Your task to perform on an android device: See recent photos Image 0: 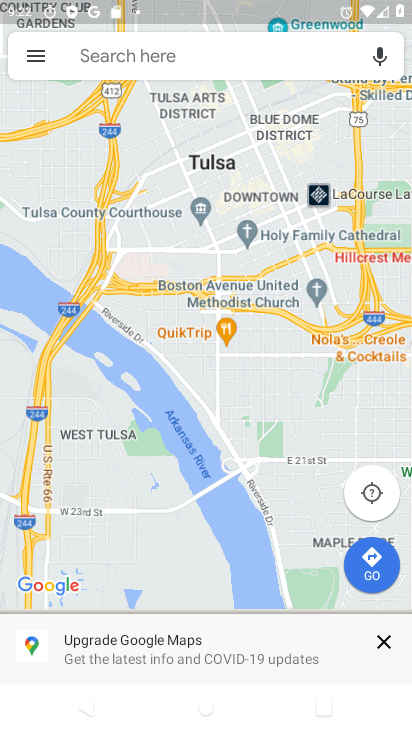
Step 0: press home button
Your task to perform on an android device: See recent photos Image 1: 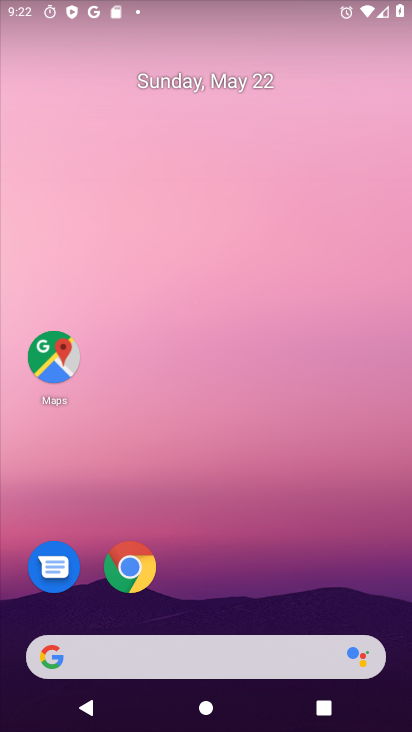
Step 1: drag from (192, 563) to (260, 32)
Your task to perform on an android device: See recent photos Image 2: 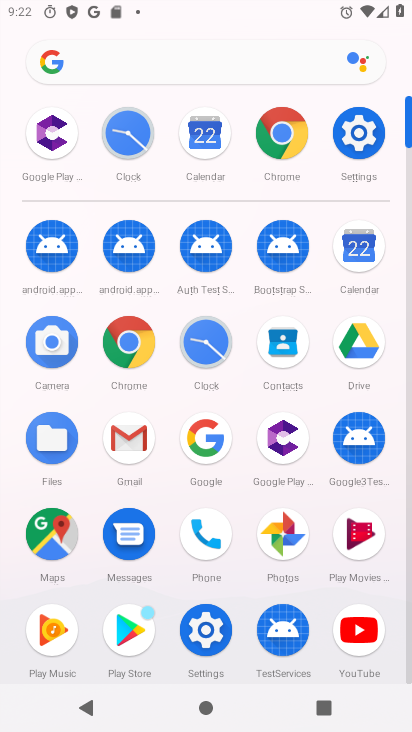
Step 2: click (201, 64)
Your task to perform on an android device: See recent photos Image 3: 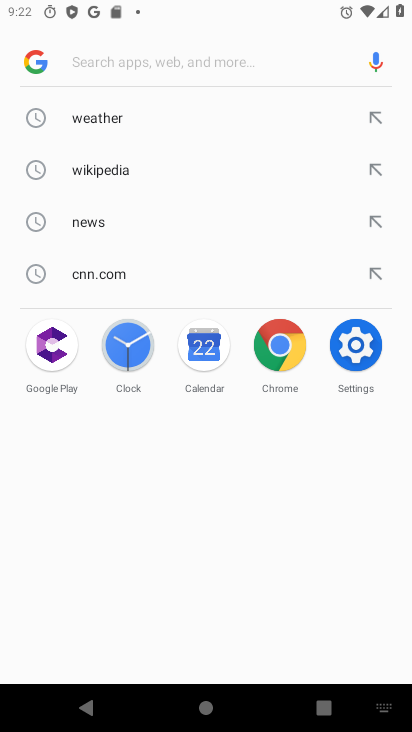
Step 3: press home button
Your task to perform on an android device: See recent photos Image 4: 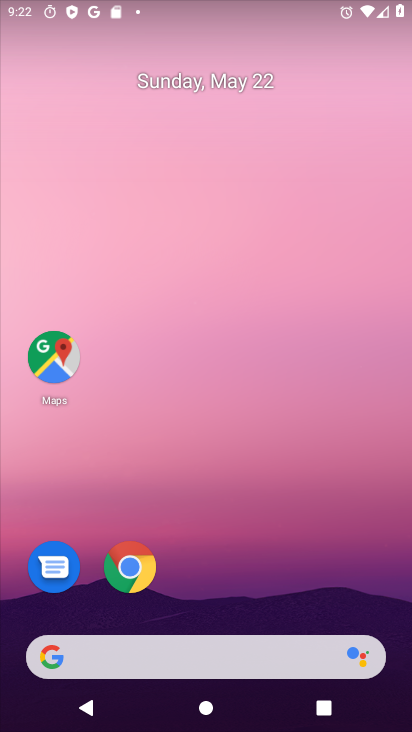
Step 4: drag from (200, 596) to (265, 17)
Your task to perform on an android device: See recent photos Image 5: 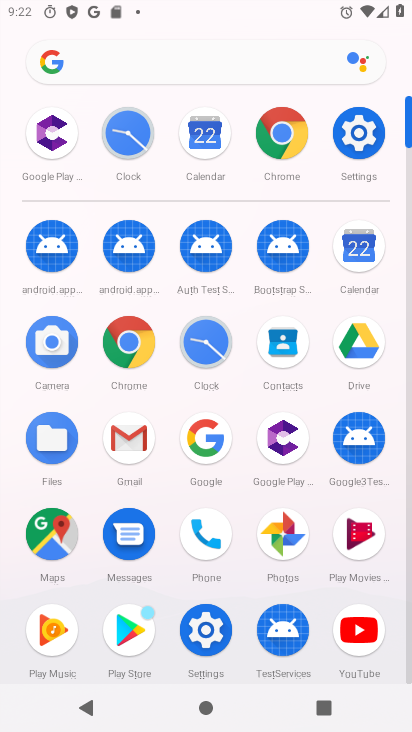
Step 5: drag from (252, 549) to (233, 351)
Your task to perform on an android device: See recent photos Image 6: 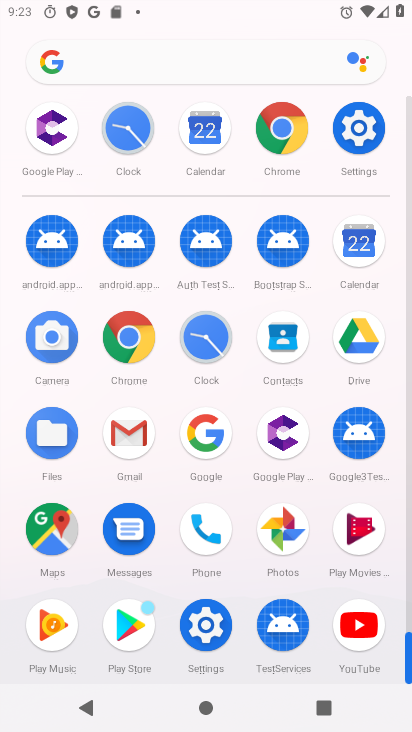
Step 6: click (277, 533)
Your task to perform on an android device: See recent photos Image 7: 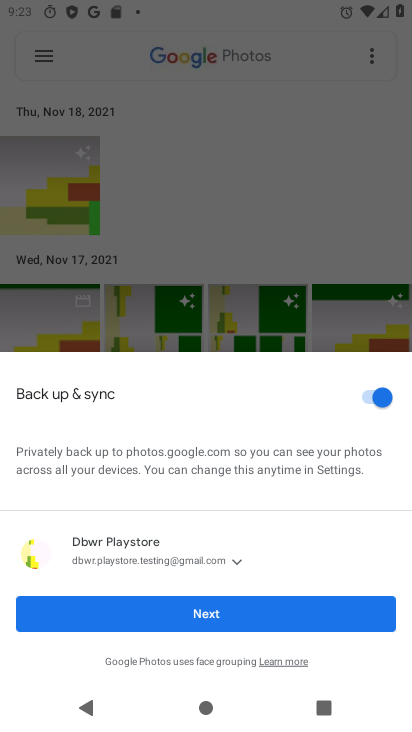
Step 7: click (170, 617)
Your task to perform on an android device: See recent photos Image 8: 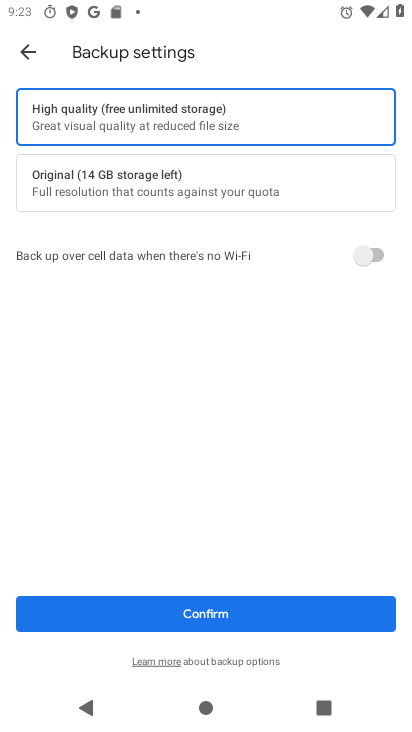
Step 8: click (172, 617)
Your task to perform on an android device: See recent photos Image 9: 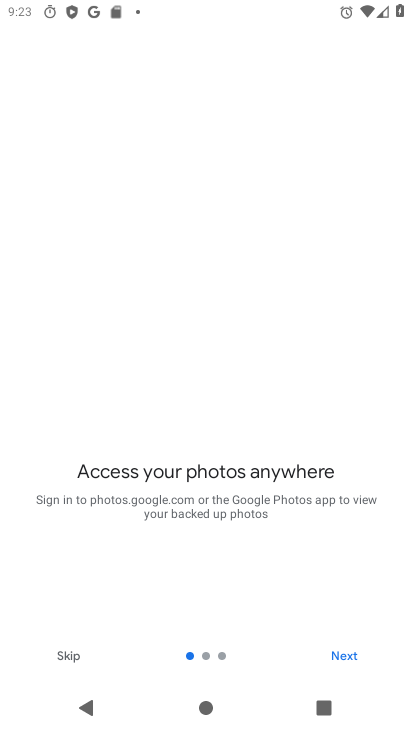
Step 9: click (71, 655)
Your task to perform on an android device: See recent photos Image 10: 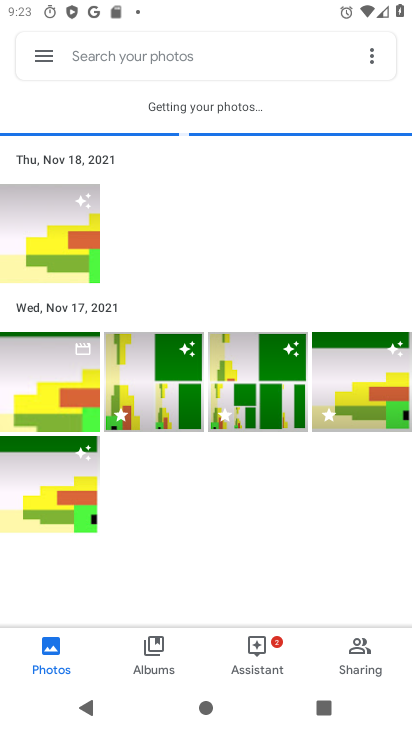
Step 10: task complete